Your task to perform on an android device: Clear the shopping cart on ebay. Search for apple airpods pro on ebay, select the first entry, add it to the cart, then select checkout. Image 0: 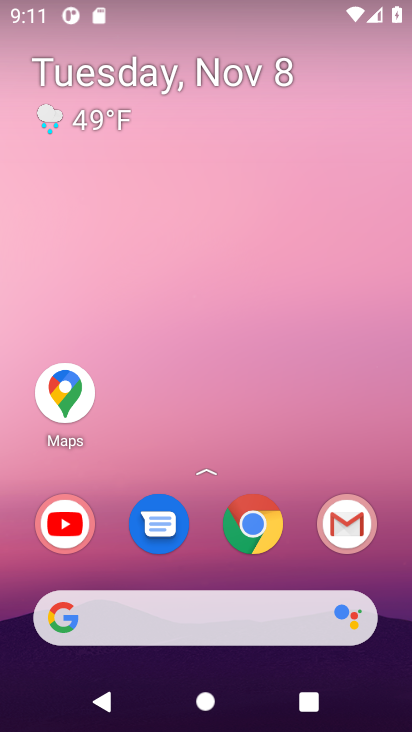
Step 0: click (256, 528)
Your task to perform on an android device: Clear the shopping cart on ebay. Search for apple airpods pro on ebay, select the first entry, add it to the cart, then select checkout. Image 1: 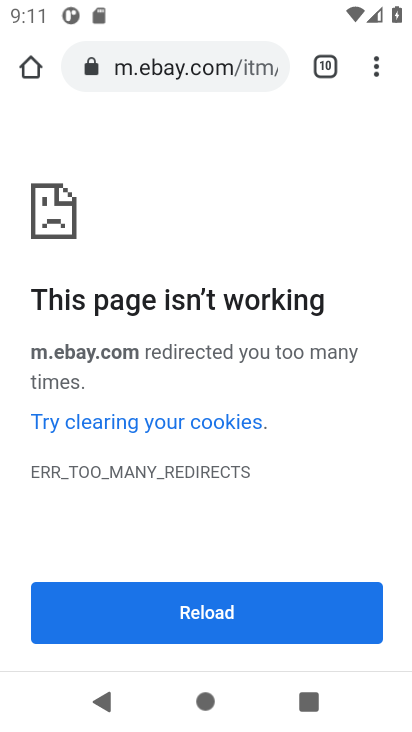
Step 1: click (167, 71)
Your task to perform on an android device: Clear the shopping cart on ebay. Search for apple airpods pro on ebay, select the first entry, add it to the cart, then select checkout. Image 2: 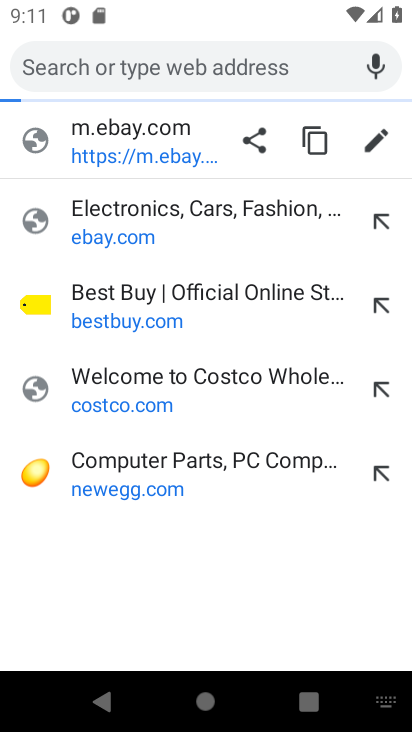
Step 2: click (108, 231)
Your task to perform on an android device: Clear the shopping cart on ebay. Search for apple airpods pro on ebay, select the first entry, add it to the cart, then select checkout. Image 3: 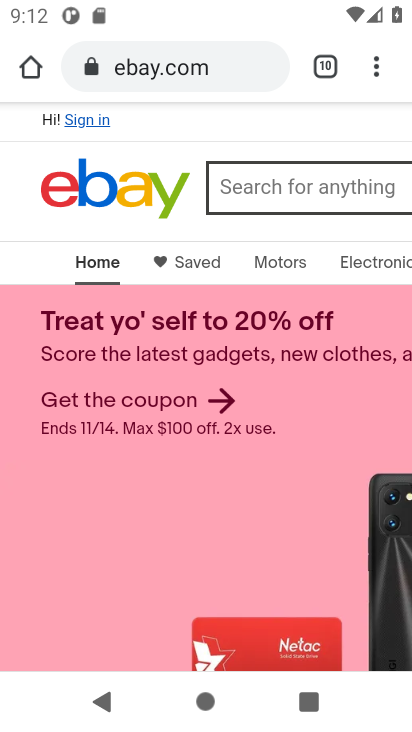
Step 3: drag from (336, 234) to (25, 198)
Your task to perform on an android device: Clear the shopping cart on ebay. Search for apple airpods pro on ebay, select the first entry, add it to the cart, then select checkout. Image 4: 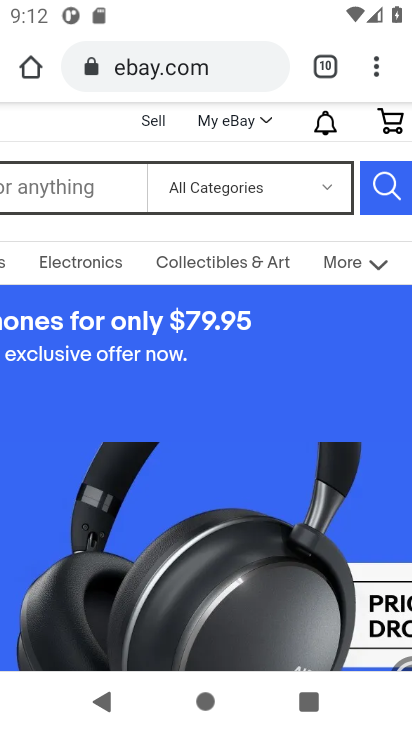
Step 4: click (392, 124)
Your task to perform on an android device: Clear the shopping cart on ebay. Search for apple airpods pro on ebay, select the first entry, add it to the cart, then select checkout. Image 5: 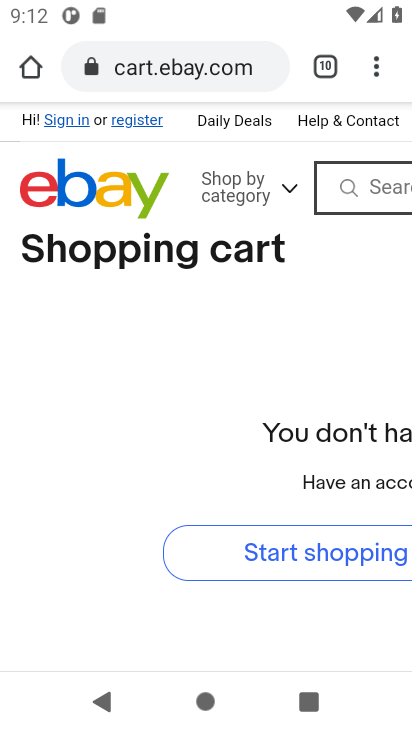
Step 5: click (349, 185)
Your task to perform on an android device: Clear the shopping cart on ebay. Search for apple airpods pro on ebay, select the first entry, add it to the cart, then select checkout. Image 6: 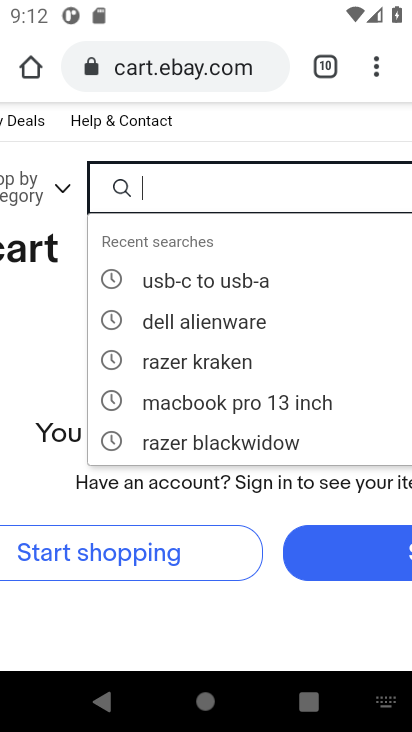
Step 6: type "apple airpods pro"
Your task to perform on an android device: Clear the shopping cart on ebay. Search for apple airpods pro on ebay, select the first entry, add it to the cart, then select checkout. Image 7: 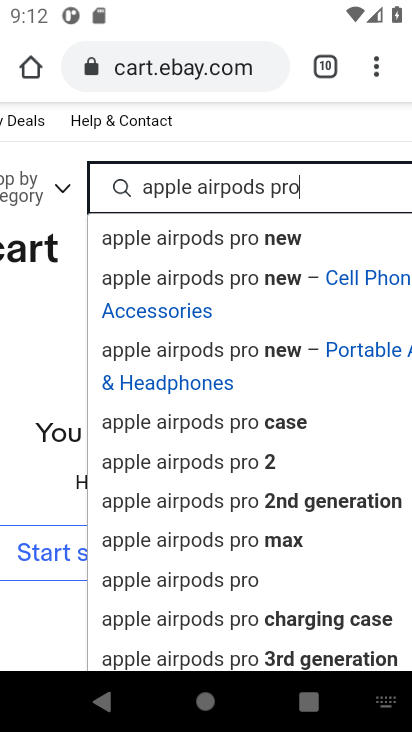
Step 7: click (175, 245)
Your task to perform on an android device: Clear the shopping cart on ebay. Search for apple airpods pro on ebay, select the first entry, add it to the cart, then select checkout. Image 8: 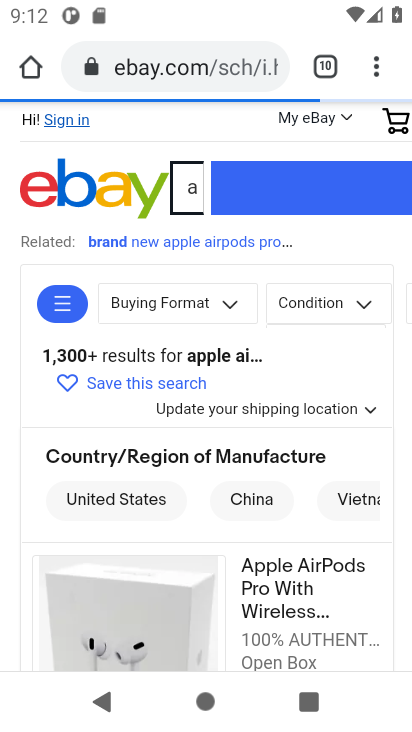
Step 8: drag from (166, 524) to (162, 372)
Your task to perform on an android device: Clear the shopping cart on ebay. Search for apple airpods pro on ebay, select the first entry, add it to the cart, then select checkout. Image 9: 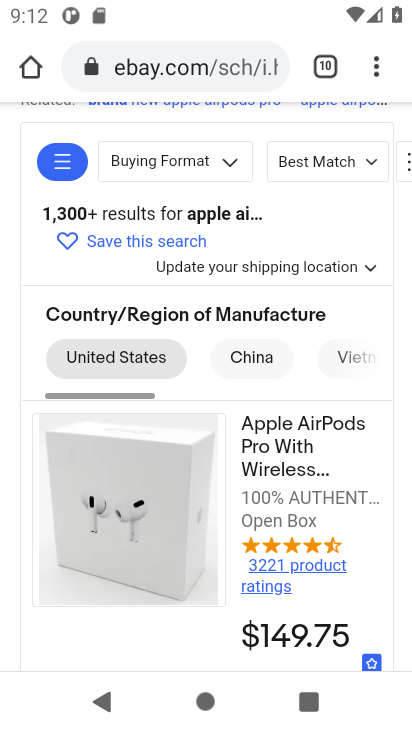
Step 9: click (187, 518)
Your task to perform on an android device: Clear the shopping cart on ebay. Search for apple airpods pro on ebay, select the first entry, add it to the cart, then select checkout. Image 10: 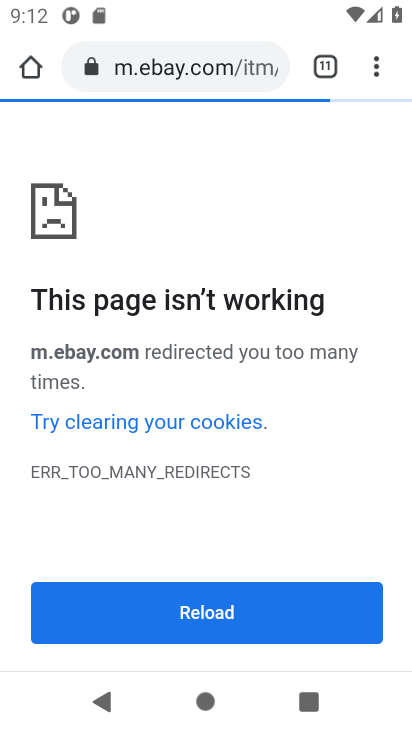
Step 10: task complete